Your task to perform on an android device: Open accessibility settings Image 0: 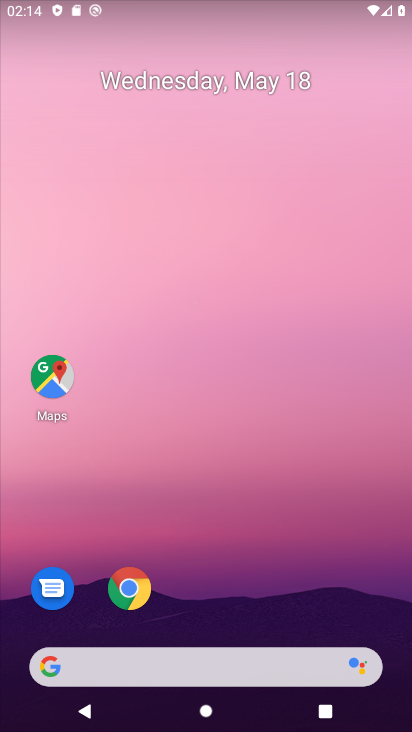
Step 0: drag from (49, 530) to (317, 204)
Your task to perform on an android device: Open accessibility settings Image 1: 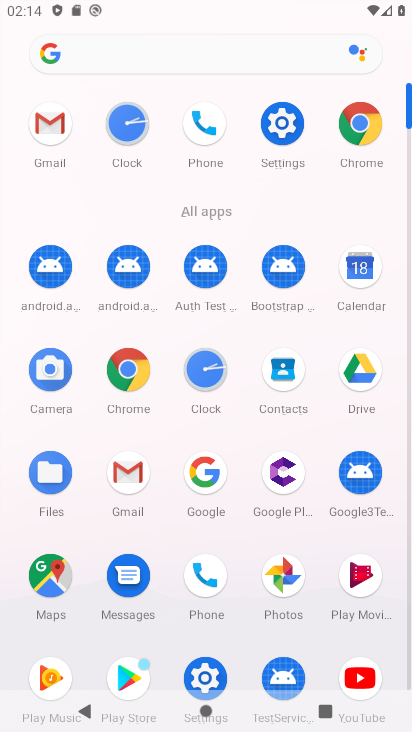
Step 1: click (286, 117)
Your task to perform on an android device: Open accessibility settings Image 2: 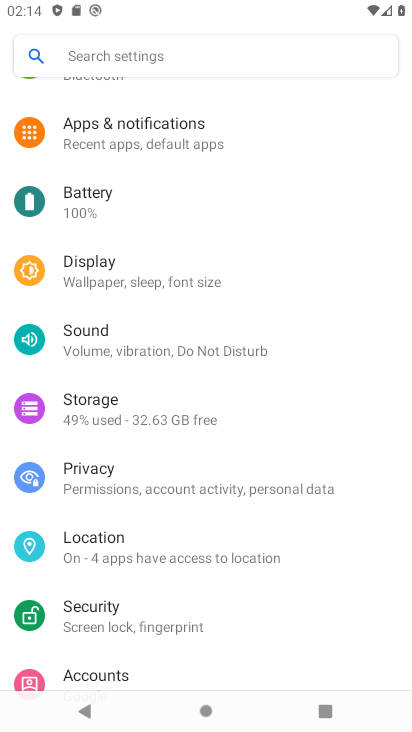
Step 2: drag from (4, 618) to (248, 186)
Your task to perform on an android device: Open accessibility settings Image 3: 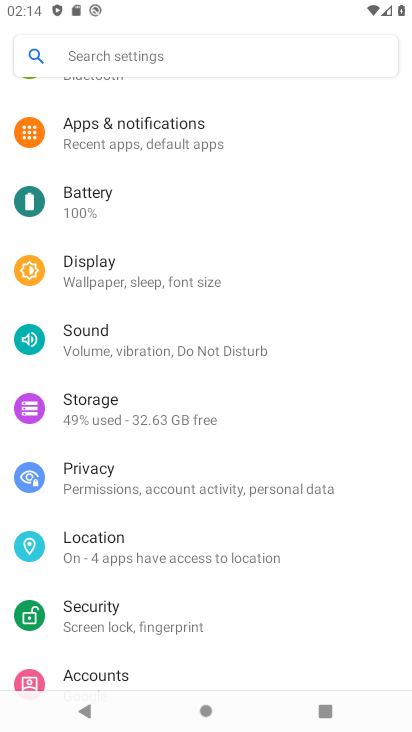
Step 3: drag from (70, 508) to (259, 192)
Your task to perform on an android device: Open accessibility settings Image 4: 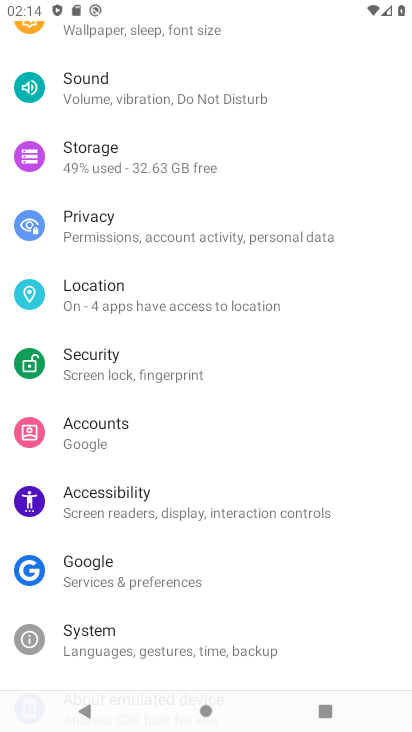
Step 4: drag from (78, 442) to (261, 162)
Your task to perform on an android device: Open accessibility settings Image 5: 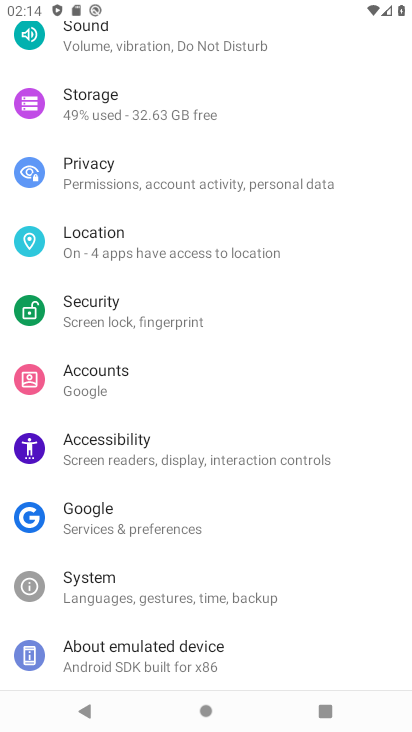
Step 5: drag from (273, 123) to (99, 629)
Your task to perform on an android device: Open accessibility settings Image 6: 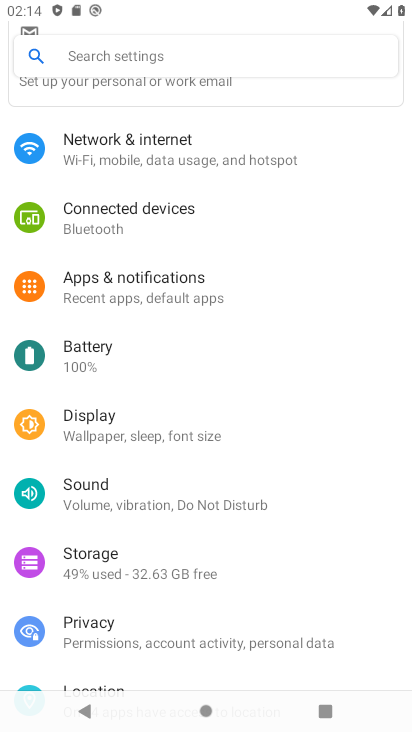
Step 6: drag from (167, 202) to (96, 539)
Your task to perform on an android device: Open accessibility settings Image 7: 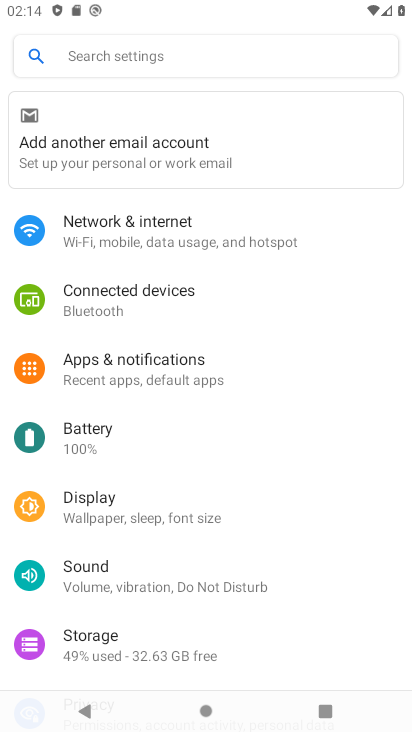
Step 7: drag from (70, 638) to (232, 198)
Your task to perform on an android device: Open accessibility settings Image 8: 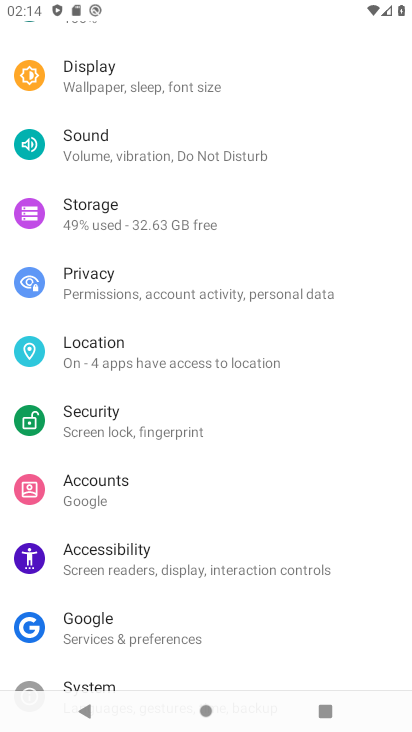
Step 8: click (111, 571)
Your task to perform on an android device: Open accessibility settings Image 9: 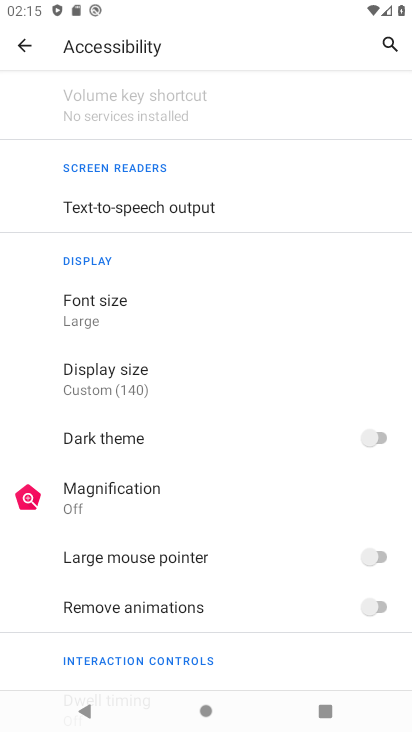
Step 9: task complete